Your task to perform on an android device: check android version Image 0: 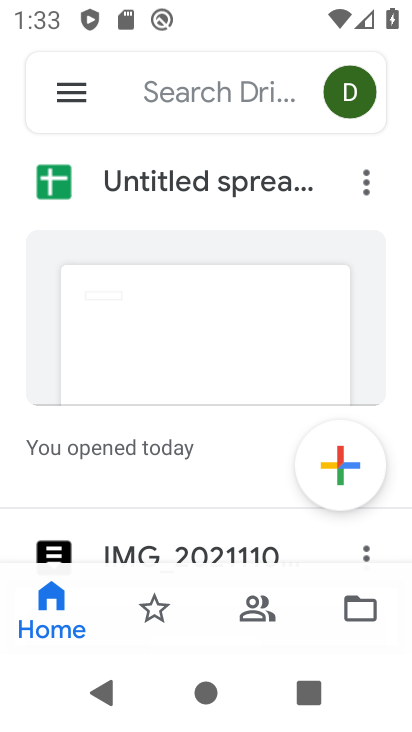
Step 0: task complete